Your task to perform on an android device: turn on location history Image 0: 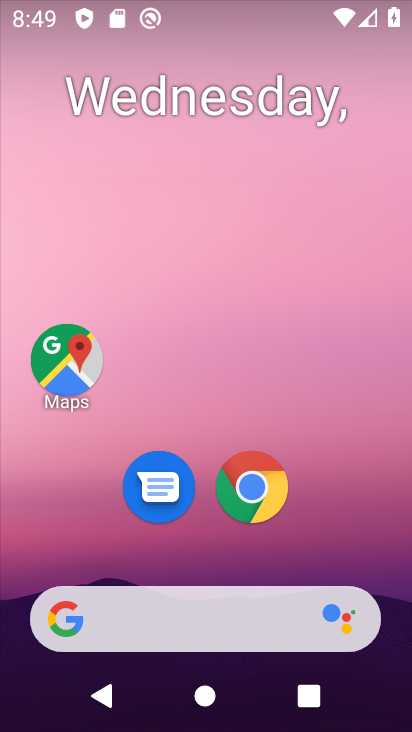
Step 0: drag from (393, 586) to (292, 146)
Your task to perform on an android device: turn on location history Image 1: 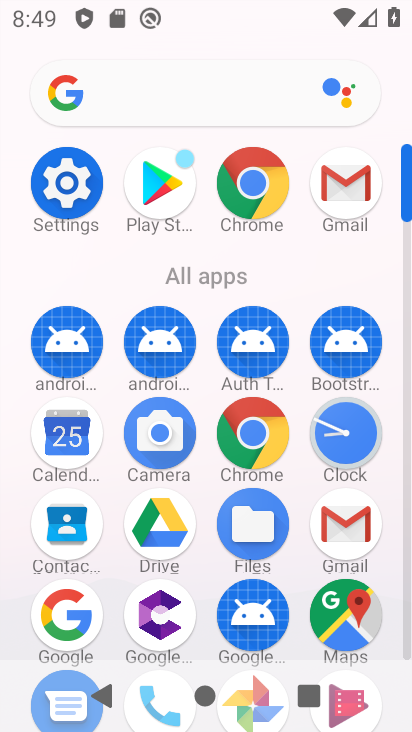
Step 1: click (63, 183)
Your task to perform on an android device: turn on location history Image 2: 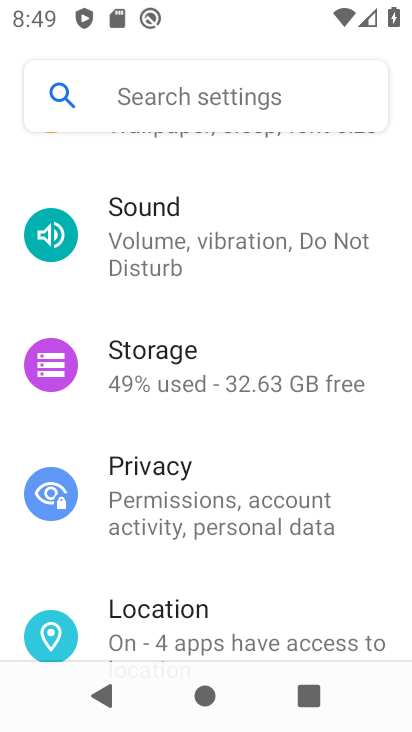
Step 2: click (224, 616)
Your task to perform on an android device: turn on location history Image 3: 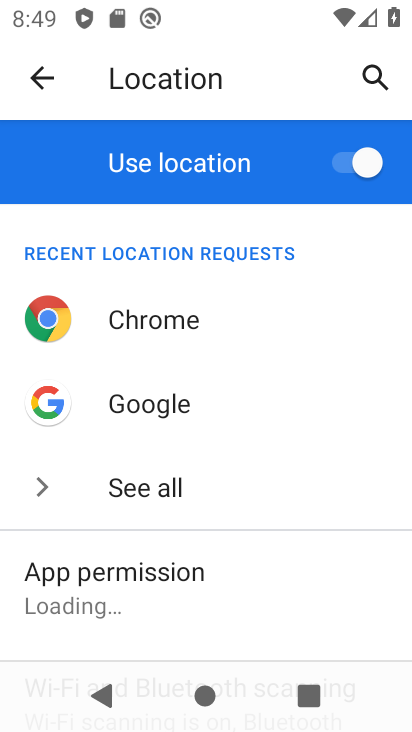
Step 3: press home button
Your task to perform on an android device: turn on location history Image 4: 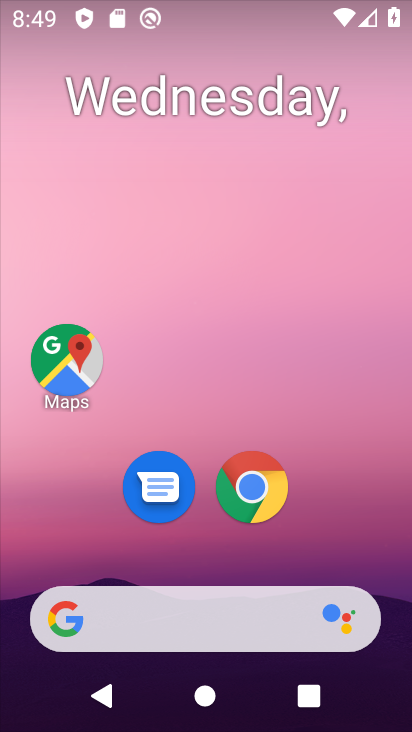
Step 4: click (68, 355)
Your task to perform on an android device: turn on location history Image 5: 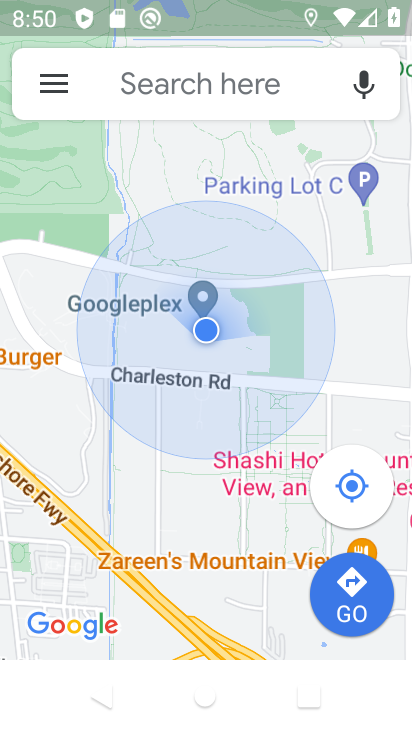
Step 5: click (51, 84)
Your task to perform on an android device: turn on location history Image 6: 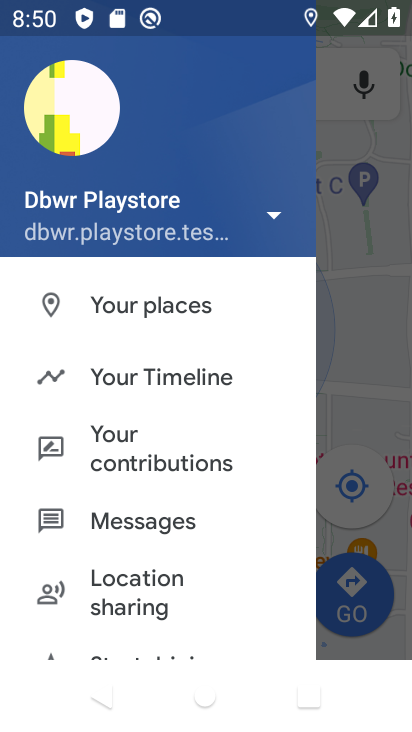
Step 6: click (190, 395)
Your task to perform on an android device: turn on location history Image 7: 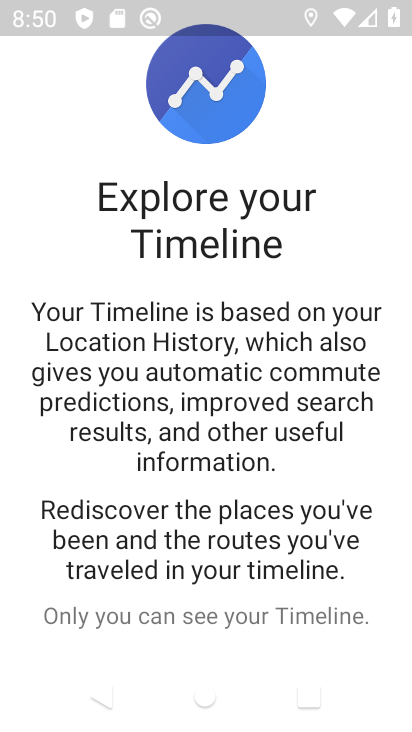
Step 7: drag from (228, 589) to (233, 257)
Your task to perform on an android device: turn on location history Image 8: 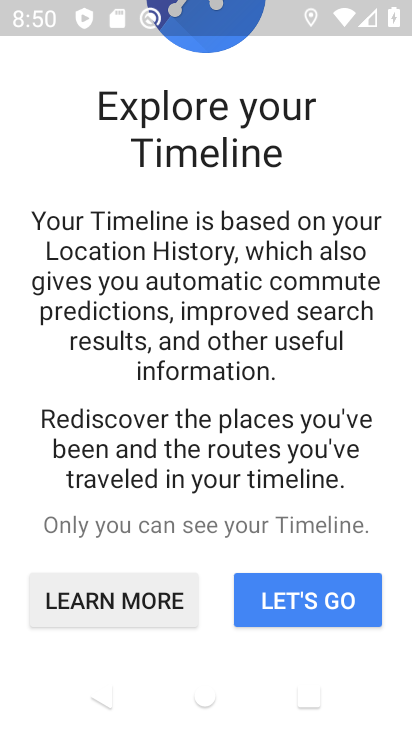
Step 8: click (345, 596)
Your task to perform on an android device: turn on location history Image 9: 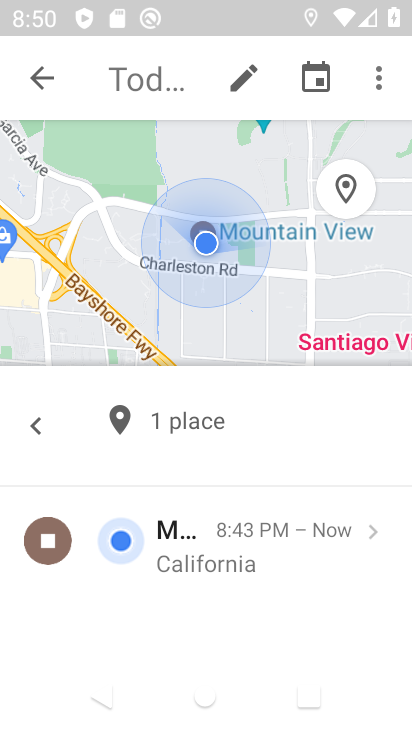
Step 9: click (383, 74)
Your task to perform on an android device: turn on location history Image 10: 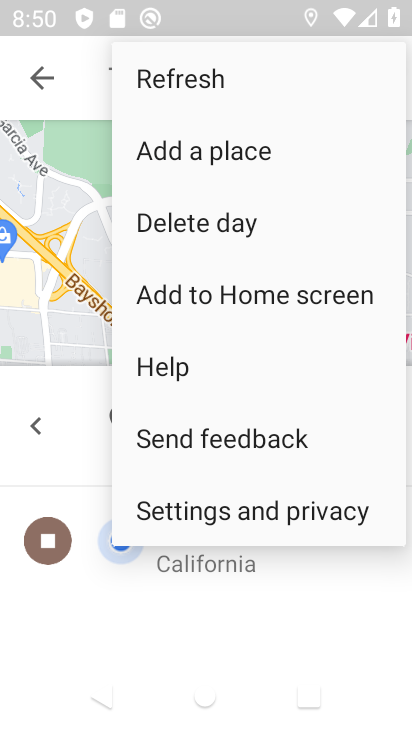
Step 10: click (266, 512)
Your task to perform on an android device: turn on location history Image 11: 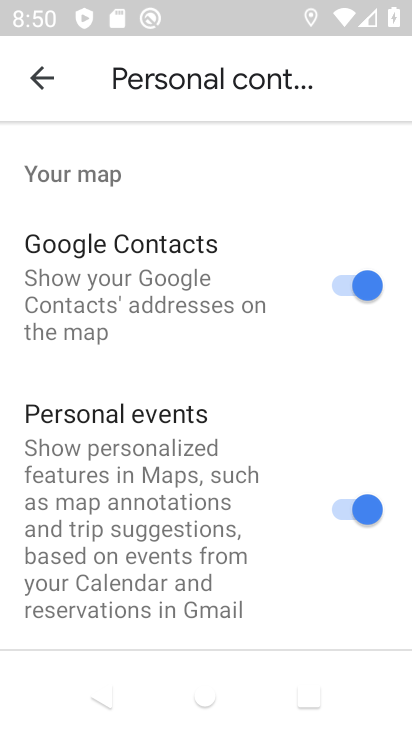
Step 11: drag from (261, 610) to (291, 135)
Your task to perform on an android device: turn on location history Image 12: 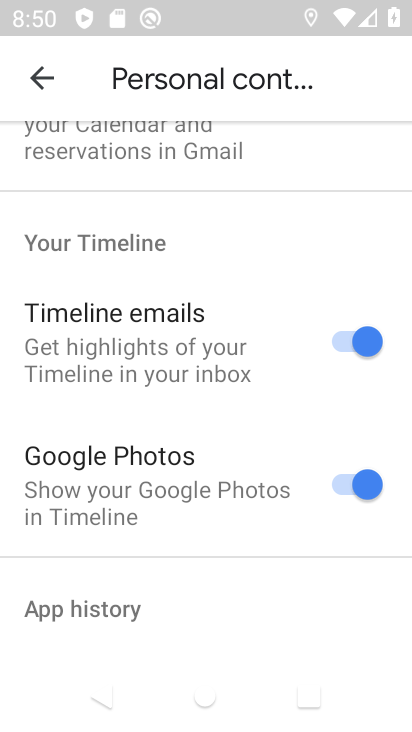
Step 12: drag from (209, 592) to (208, 90)
Your task to perform on an android device: turn on location history Image 13: 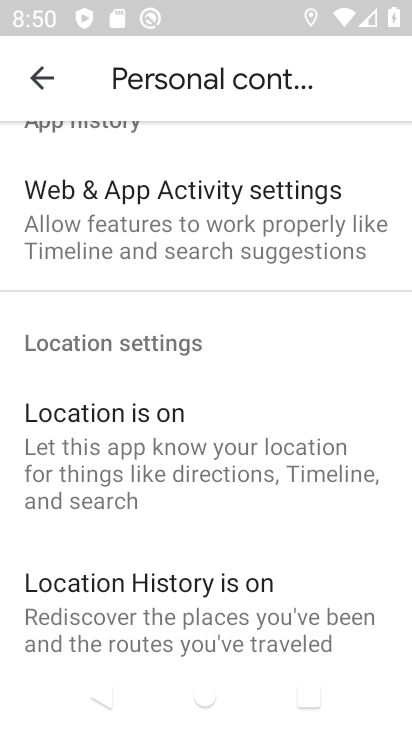
Step 13: click (264, 623)
Your task to perform on an android device: turn on location history Image 14: 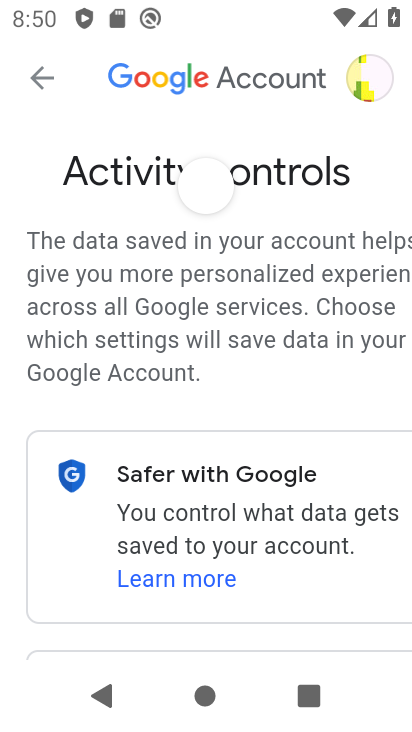
Step 14: task complete